Your task to perform on an android device: What's a good restaurant in Atlanta? Image 0: 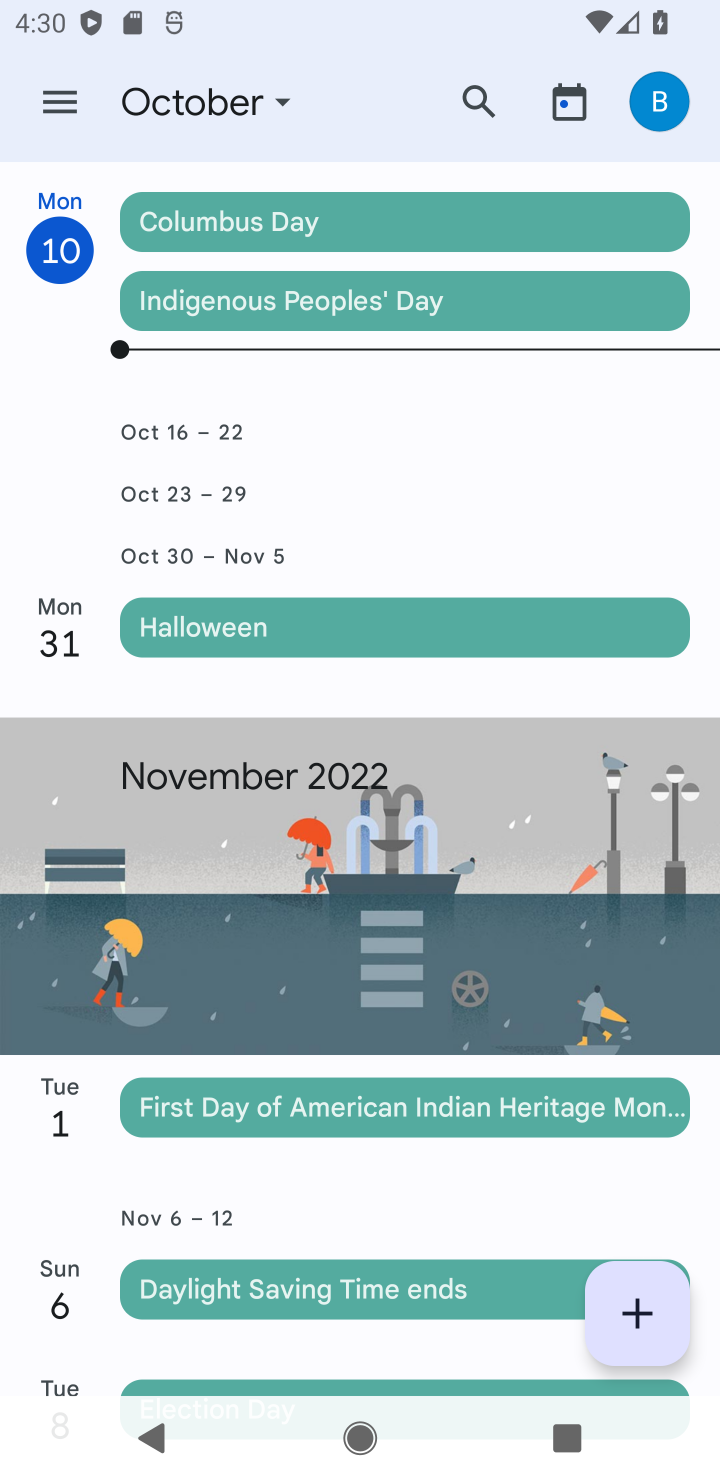
Step 0: press home button
Your task to perform on an android device: What's a good restaurant in Atlanta? Image 1: 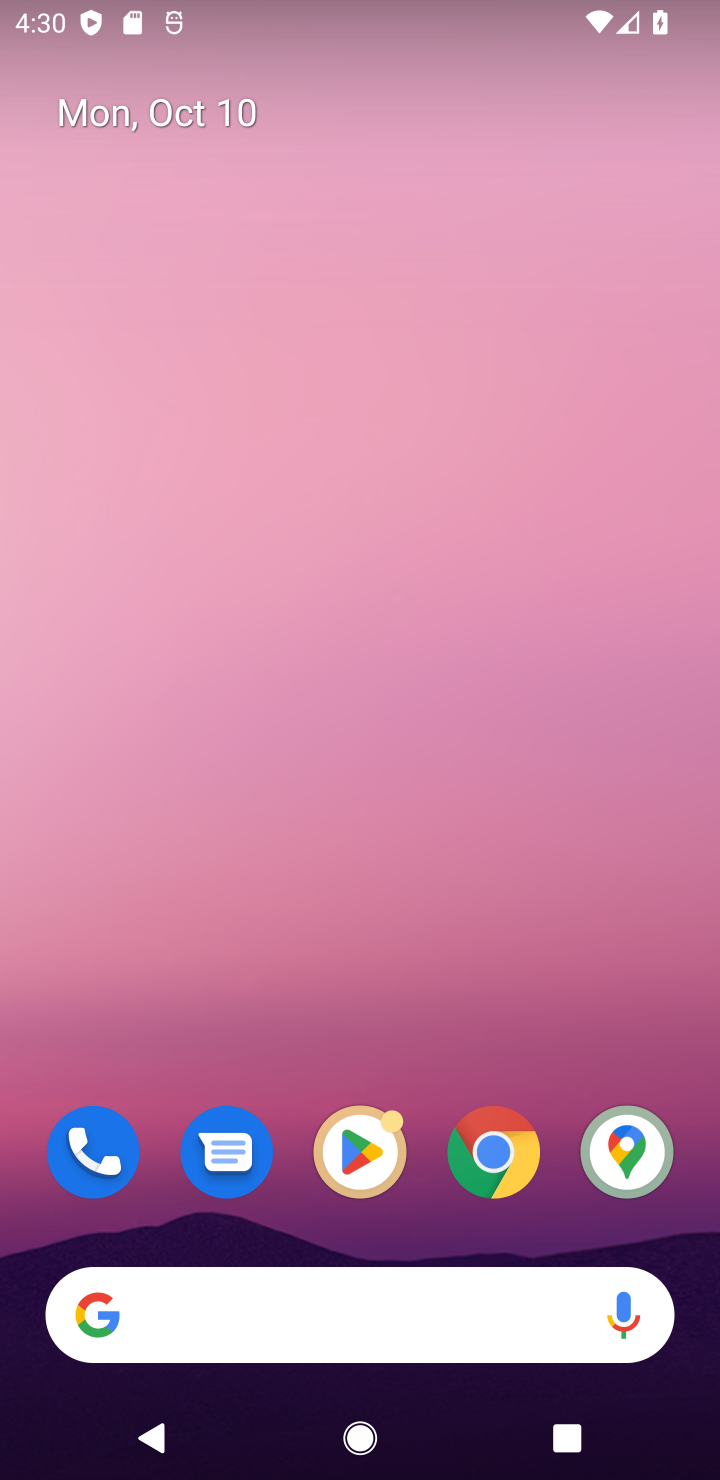
Step 1: click (490, 1150)
Your task to perform on an android device: What's a good restaurant in Atlanta? Image 2: 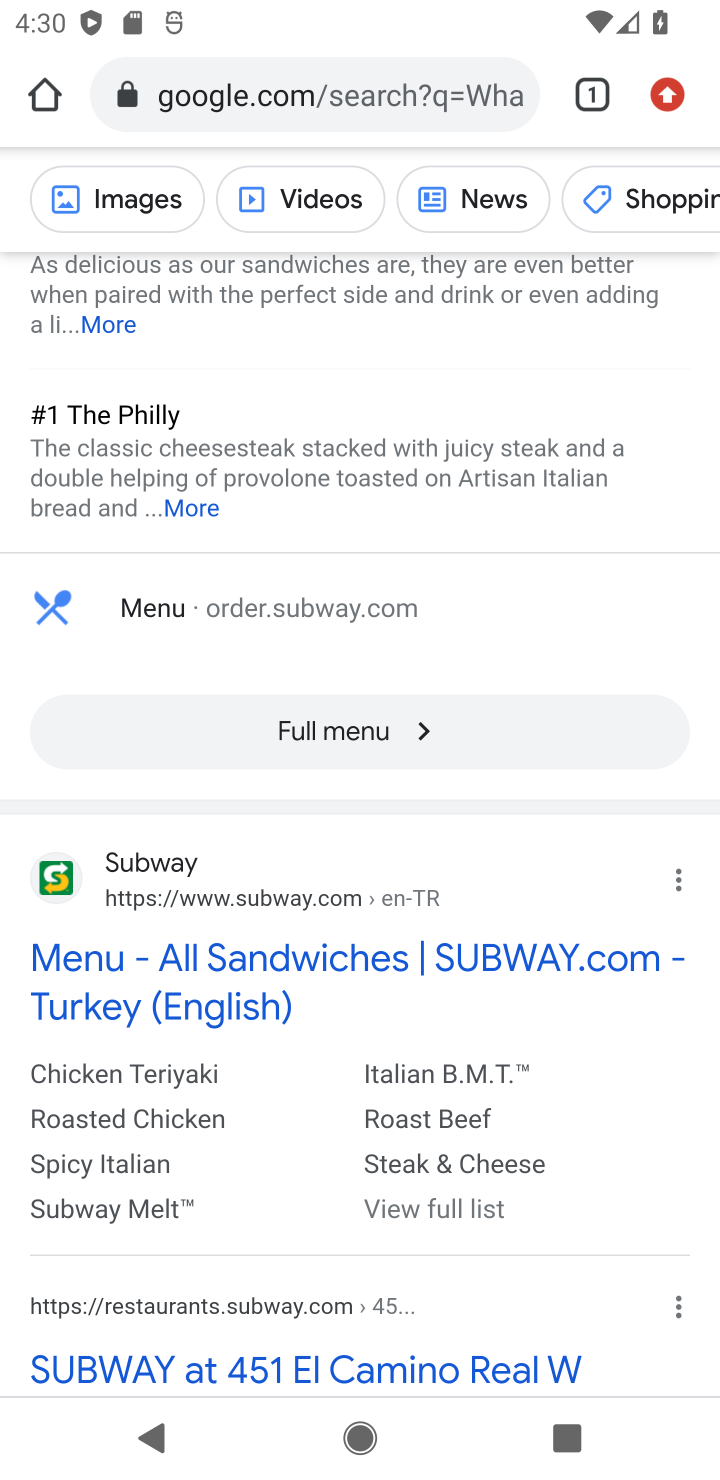
Step 2: click (411, 89)
Your task to perform on an android device: What's a good restaurant in Atlanta? Image 3: 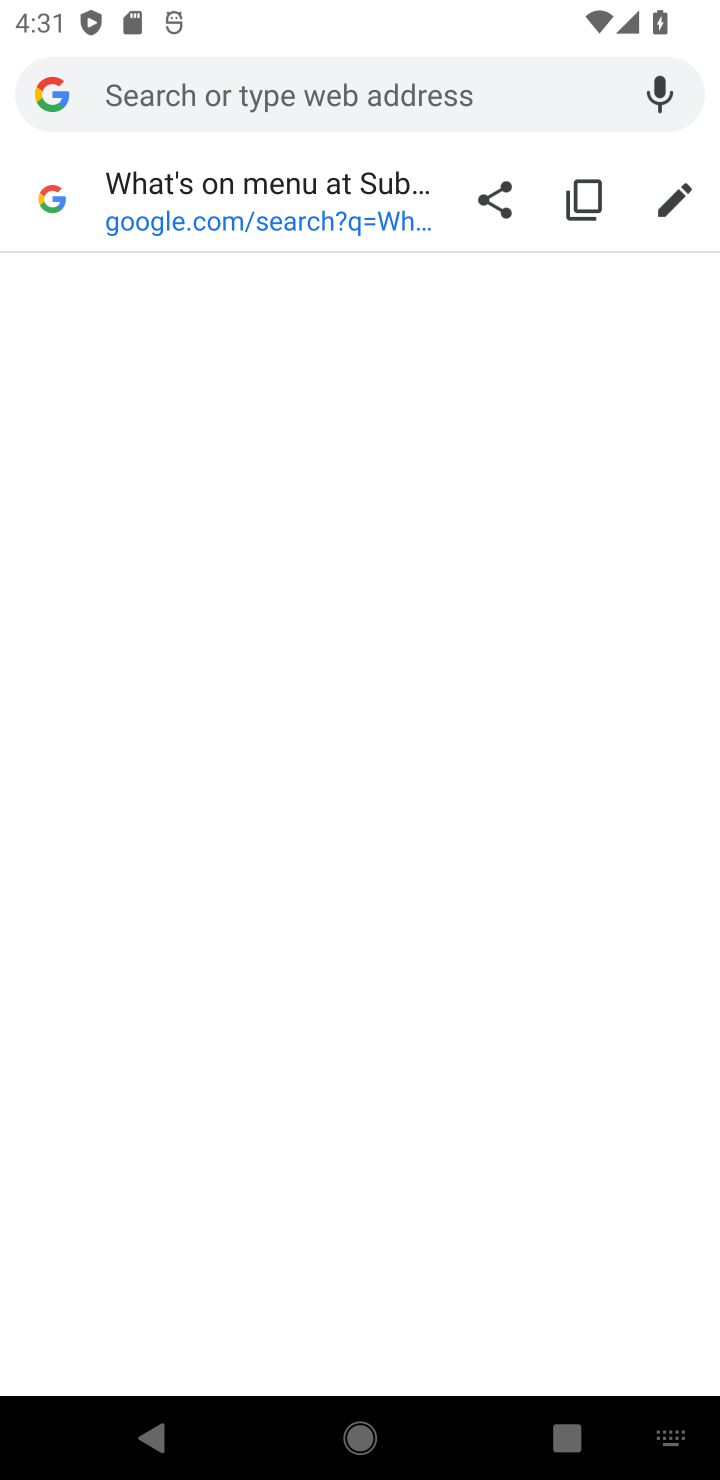
Step 3: type "good restaurant in Atlanta"
Your task to perform on an android device: What's a good restaurant in Atlanta? Image 4: 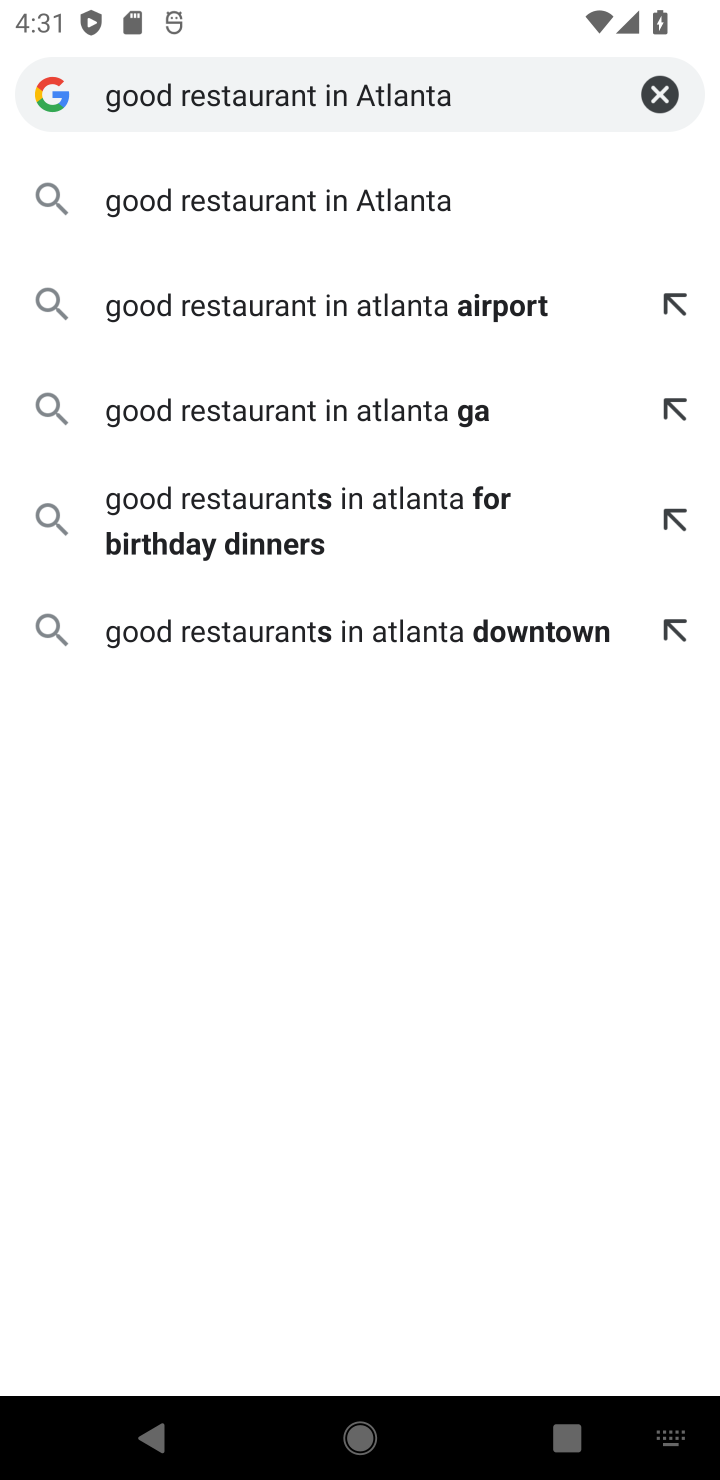
Step 4: click (286, 211)
Your task to perform on an android device: What's a good restaurant in Atlanta? Image 5: 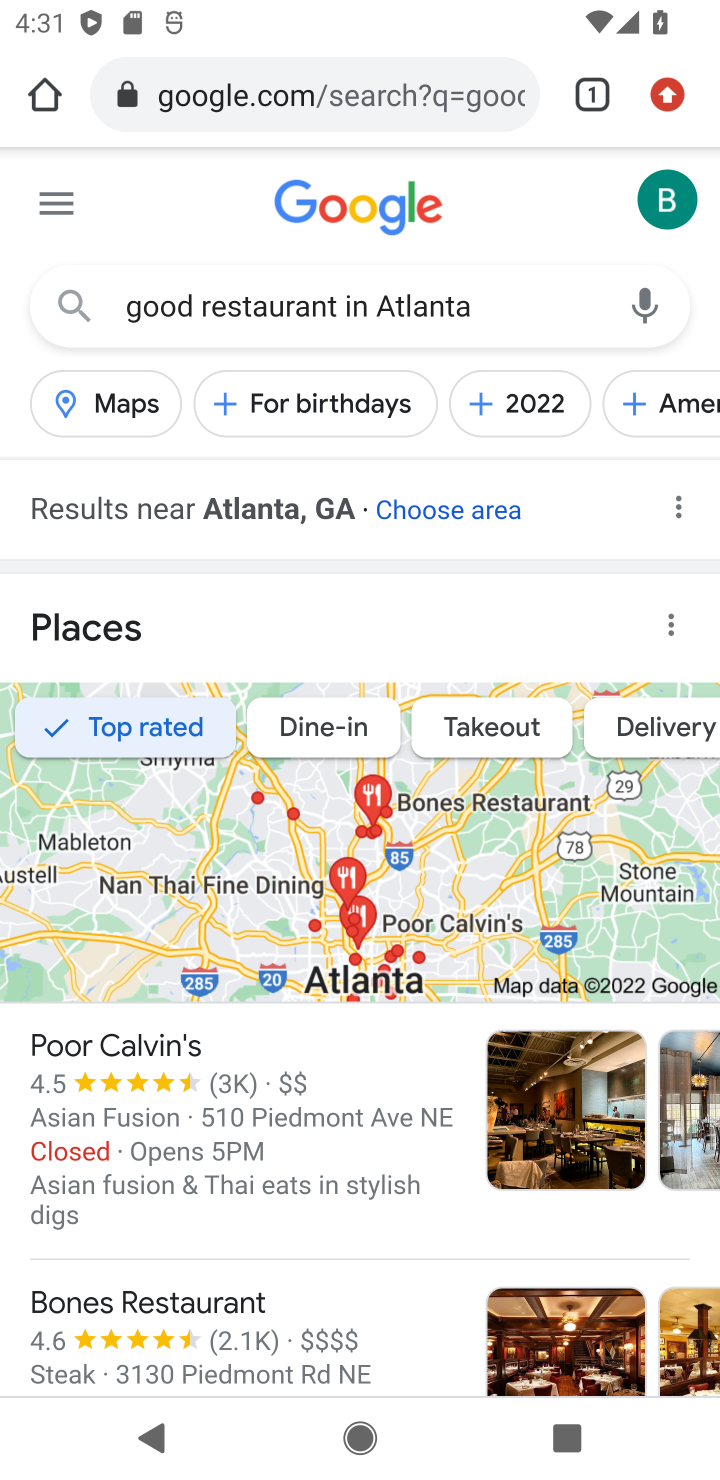
Step 5: task complete